Your task to perform on an android device: allow cookies in the chrome app Image 0: 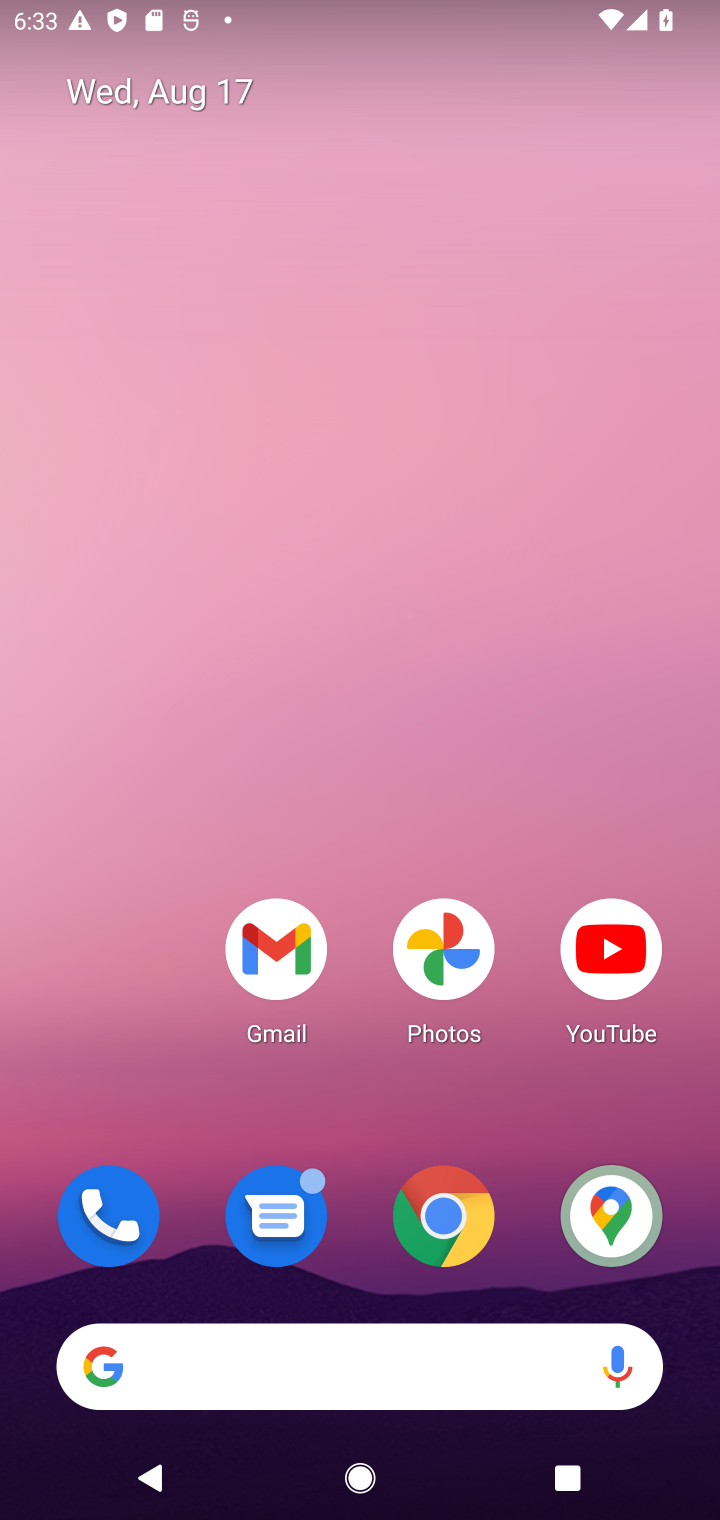
Step 0: drag from (534, 1086) to (434, 88)
Your task to perform on an android device: allow cookies in the chrome app Image 1: 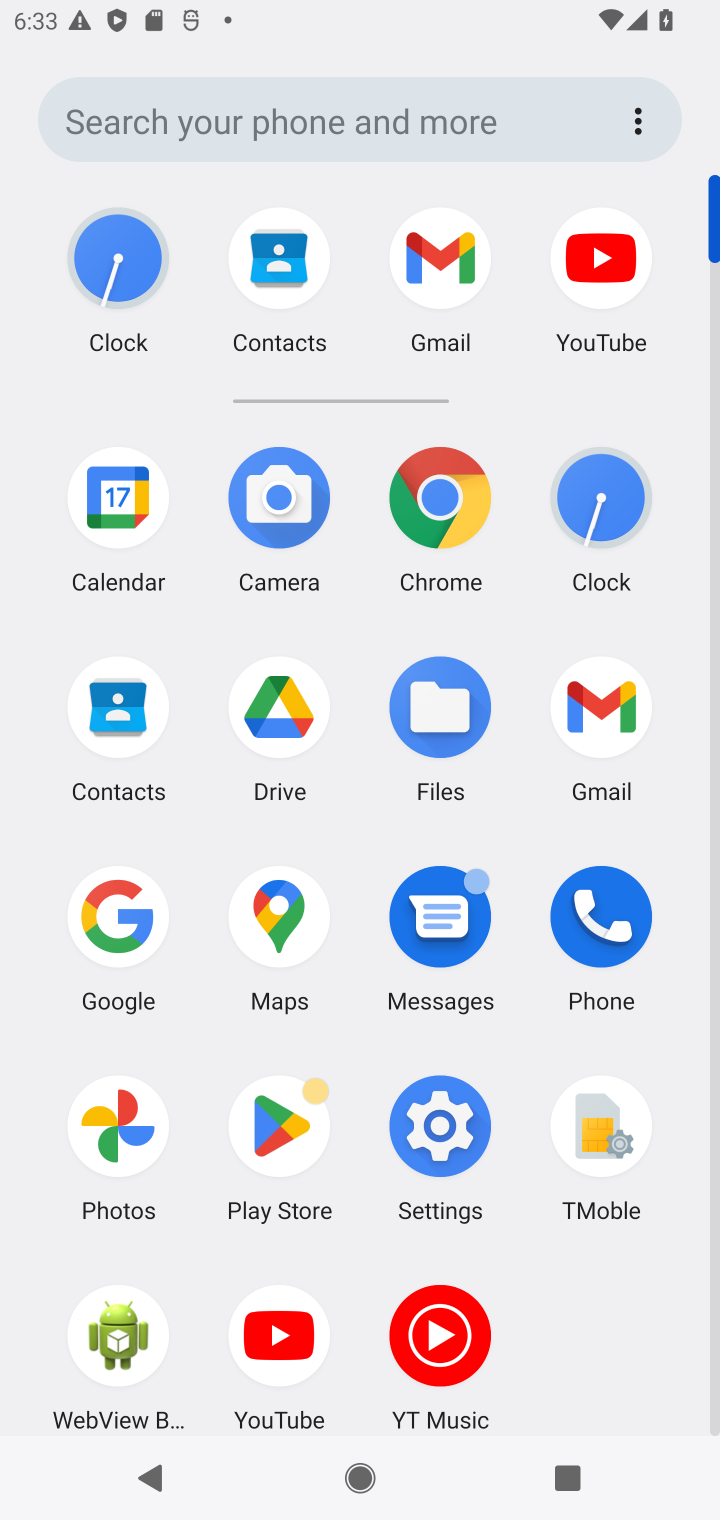
Step 1: click (440, 486)
Your task to perform on an android device: allow cookies in the chrome app Image 2: 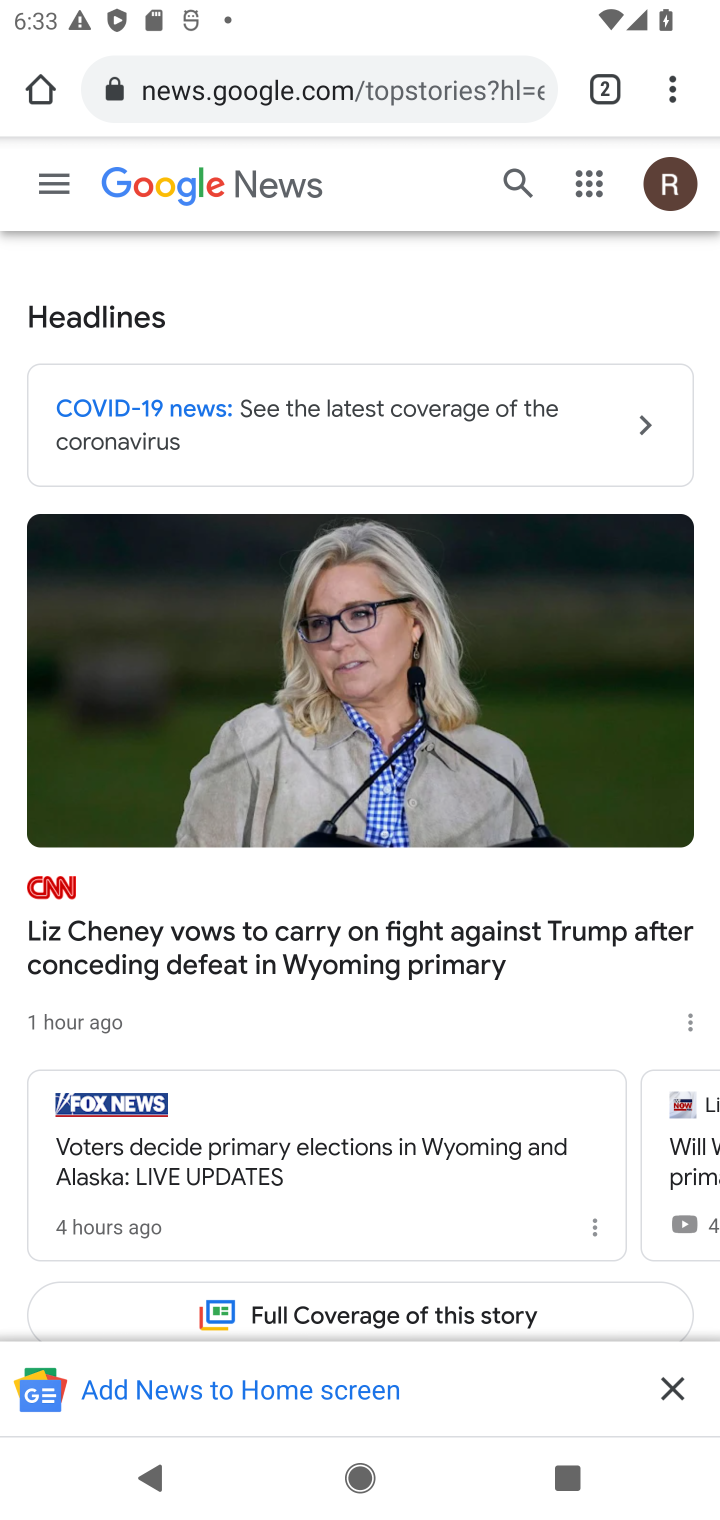
Step 2: click (679, 87)
Your task to perform on an android device: allow cookies in the chrome app Image 3: 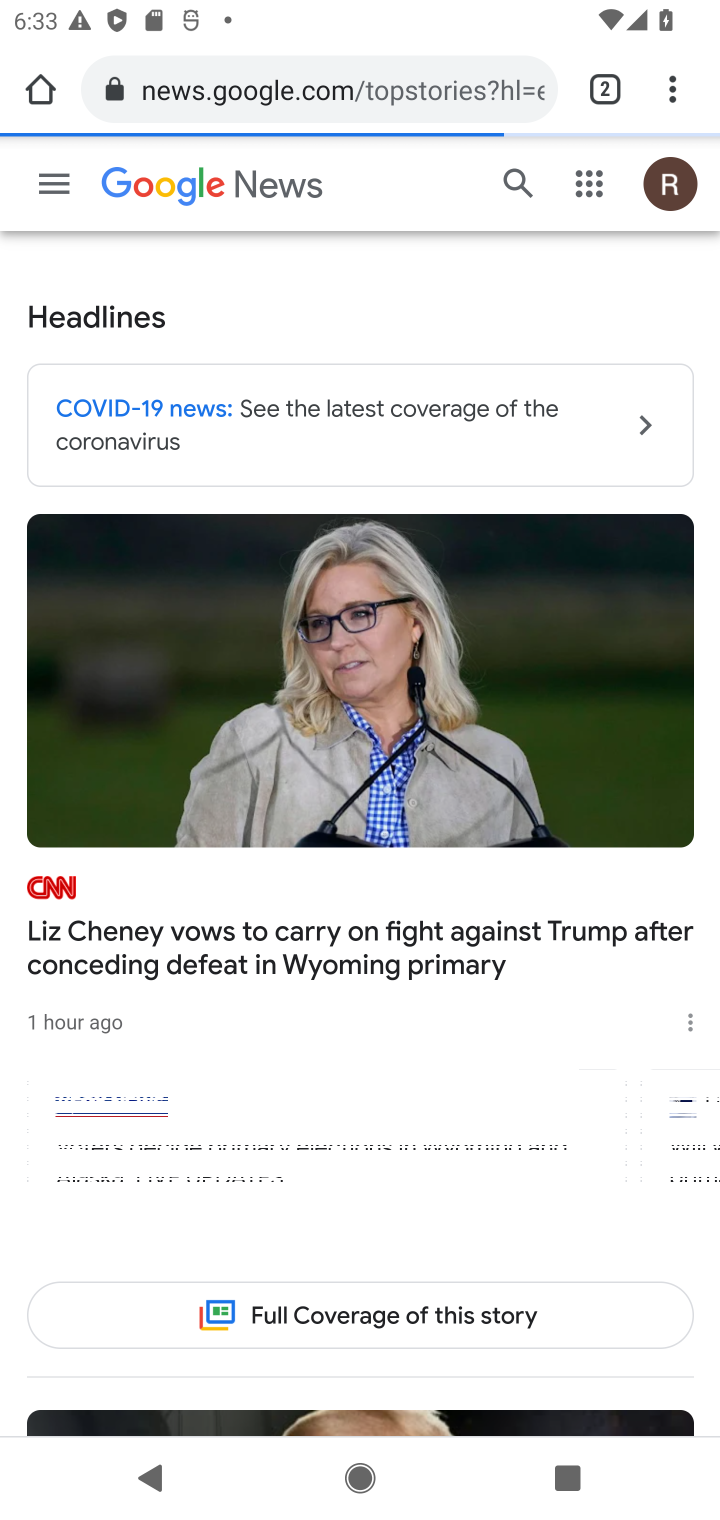
Step 3: drag from (658, 85) to (398, 1254)
Your task to perform on an android device: allow cookies in the chrome app Image 4: 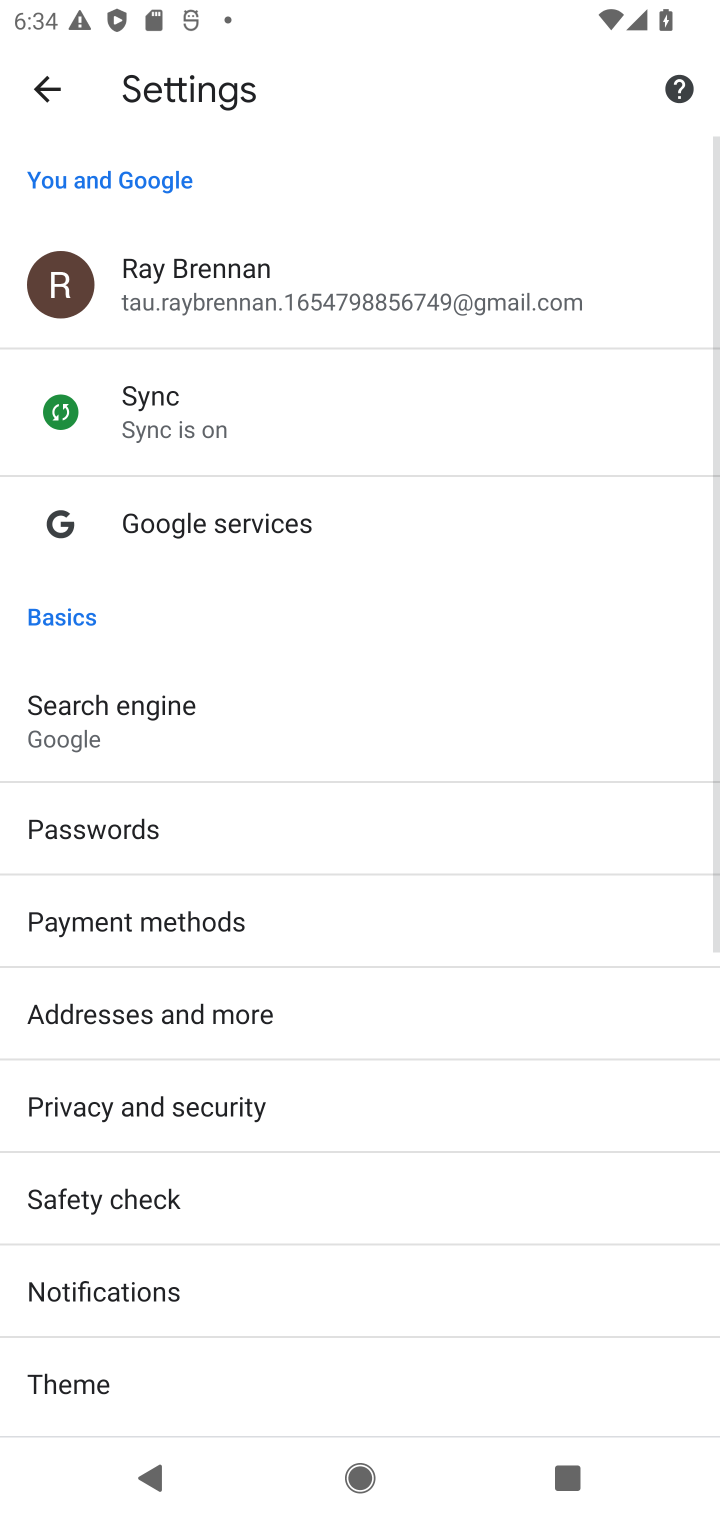
Step 4: drag from (294, 1220) to (267, 359)
Your task to perform on an android device: allow cookies in the chrome app Image 5: 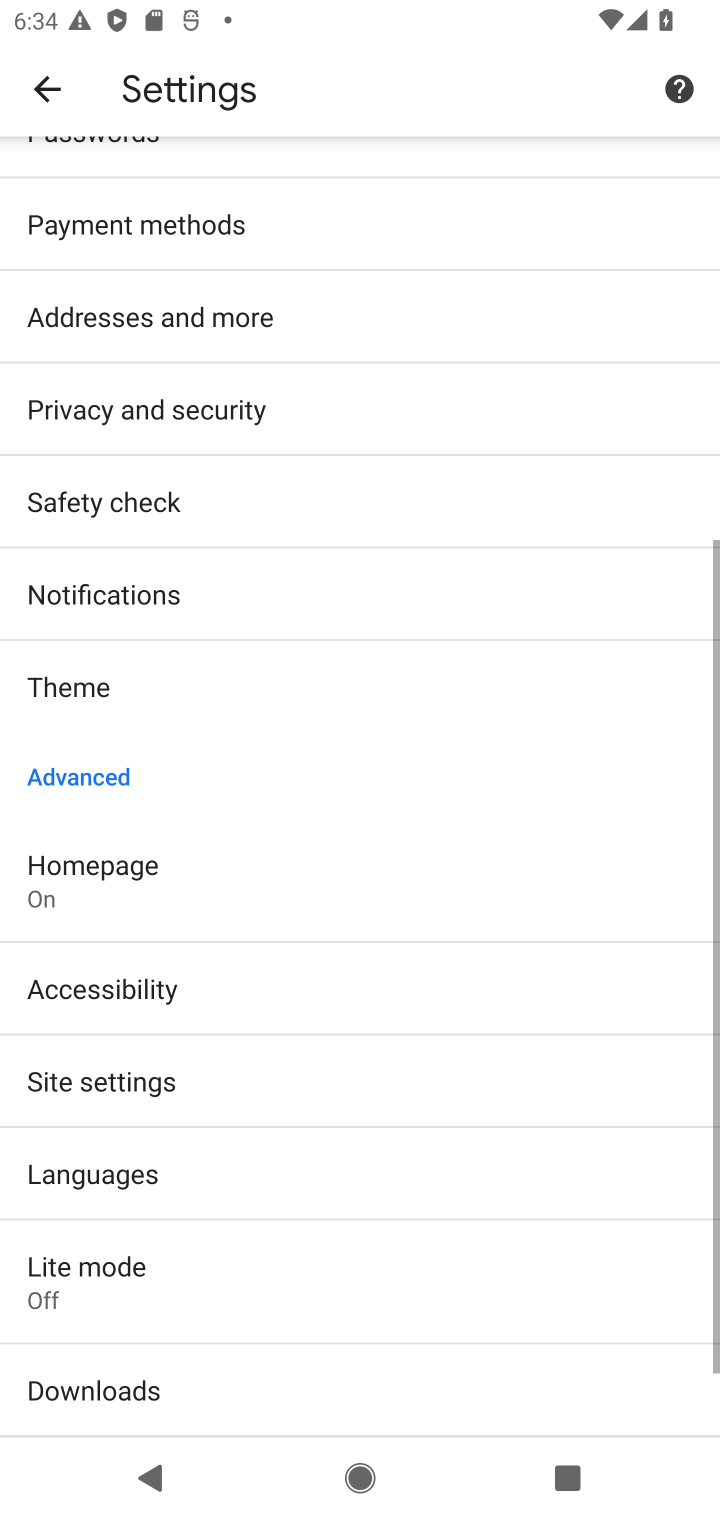
Step 5: click (118, 1083)
Your task to perform on an android device: allow cookies in the chrome app Image 6: 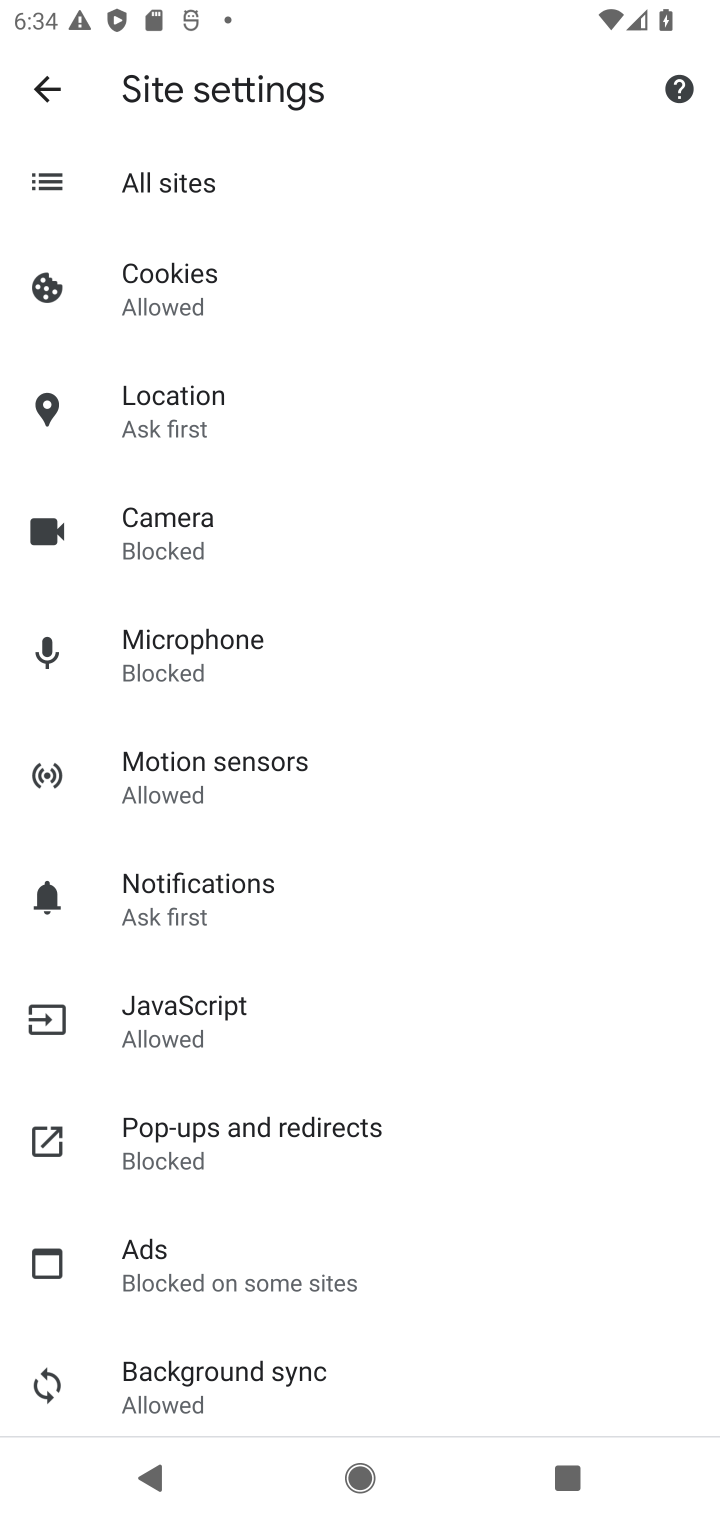
Step 6: click (202, 282)
Your task to perform on an android device: allow cookies in the chrome app Image 7: 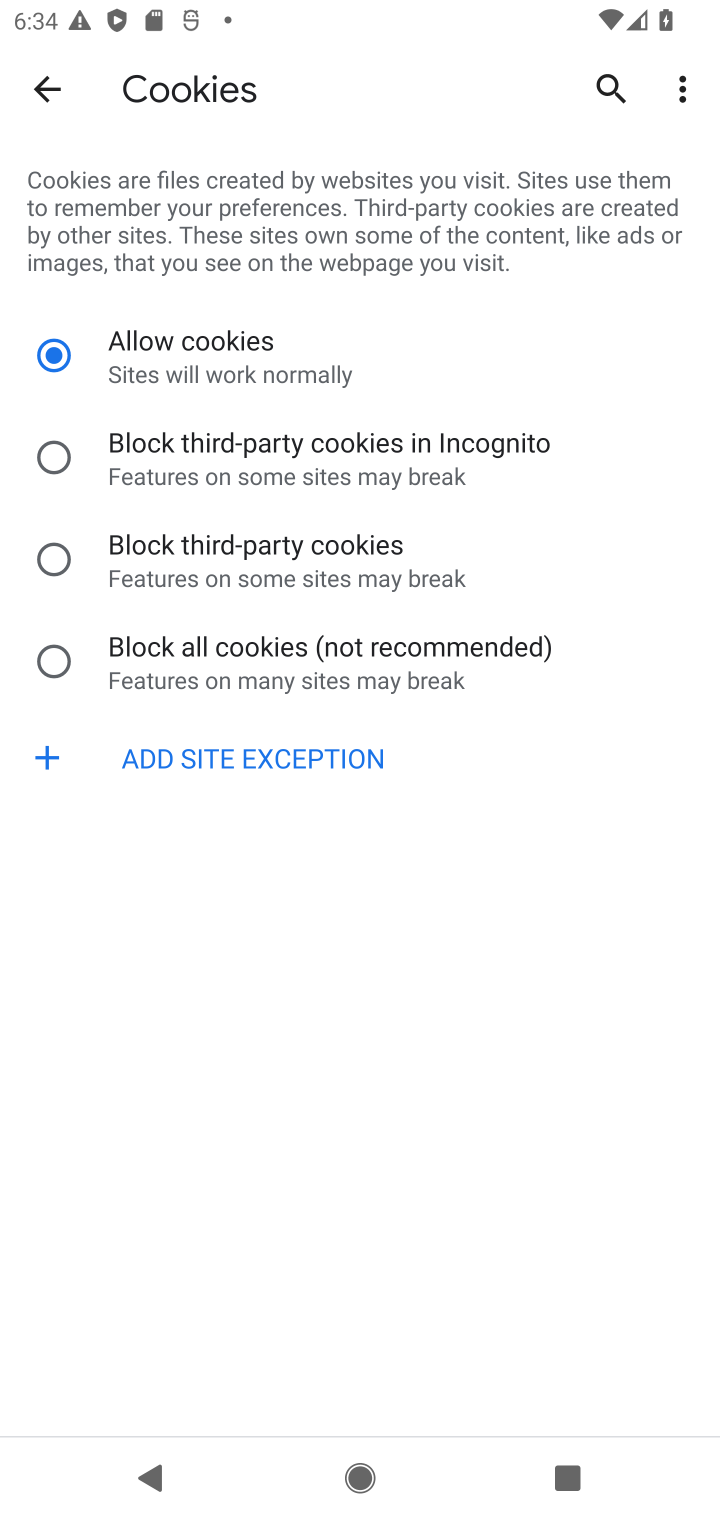
Step 7: task complete